Your task to perform on an android device: turn on priority inbox in the gmail app Image 0: 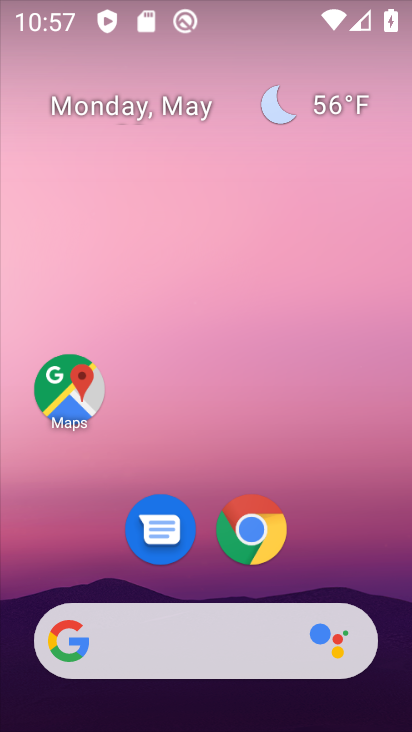
Step 0: drag from (307, 571) to (251, 201)
Your task to perform on an android device: turn on priority inbox in the gmail app Image 1: 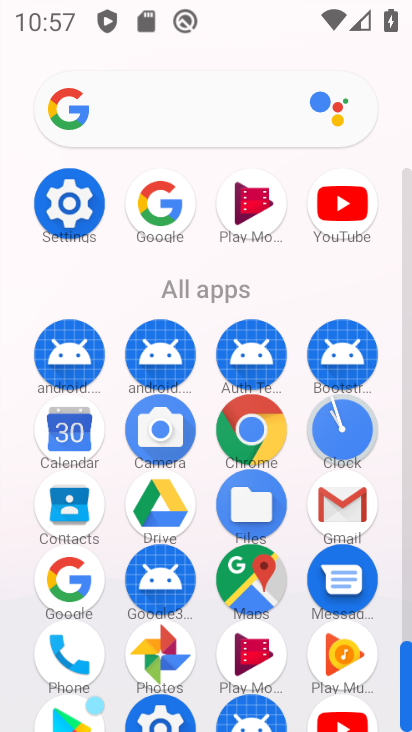
Step 1: click (345, 500)
Your task to perform on an android device: turn on priority inbox in the gmail app Image 2: 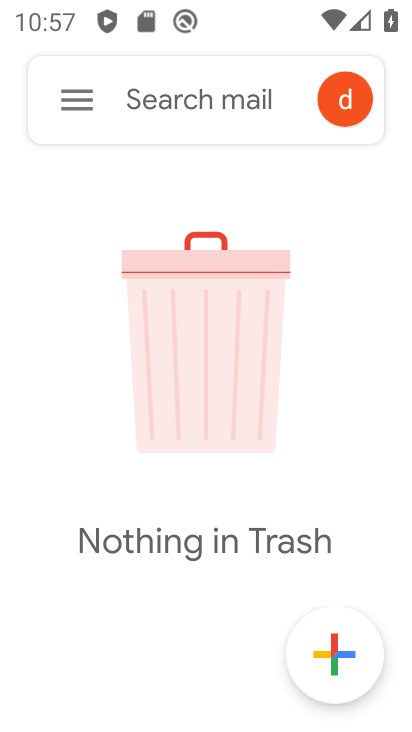
Step 2: click (74, 100)
Your task to perform on an android device: turn on priority inbox in the gmail app Image 3: 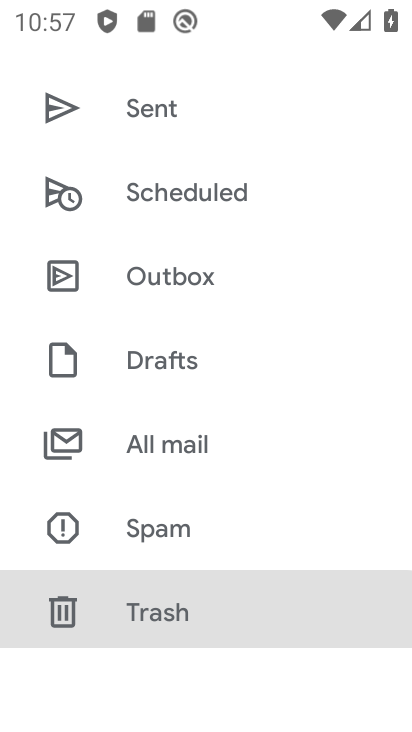
Step 3: drag from (206, 546) to (237, 385)
Your task to perform on an android device: turn on priority inbox in the gmail app Image 4: 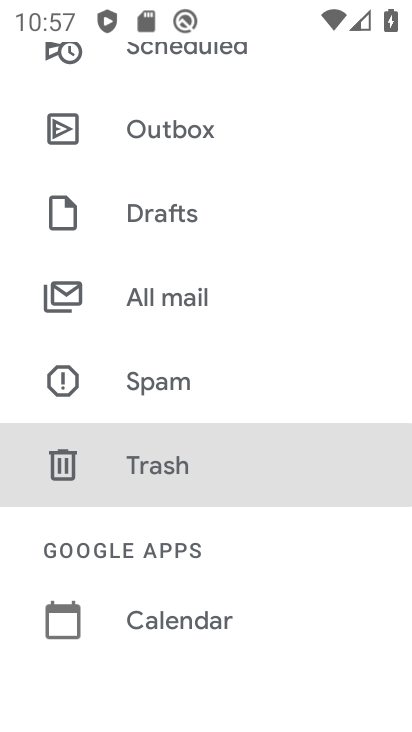
Step 4: drag from (205, 586) to (235, 396)
Your task to perform on an android device: turn on priority inbox in the gmail app Image 5: 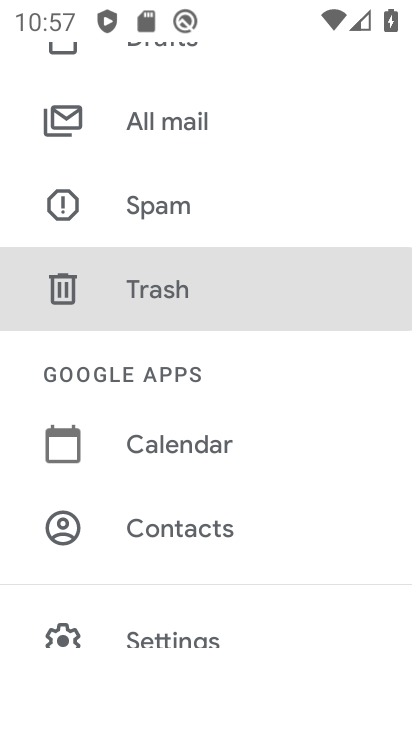
Step 5: drag from (167, 493) to (238, 372)
Your task to perform on an android device: turn on priority inbox in the gmail app Image 6: 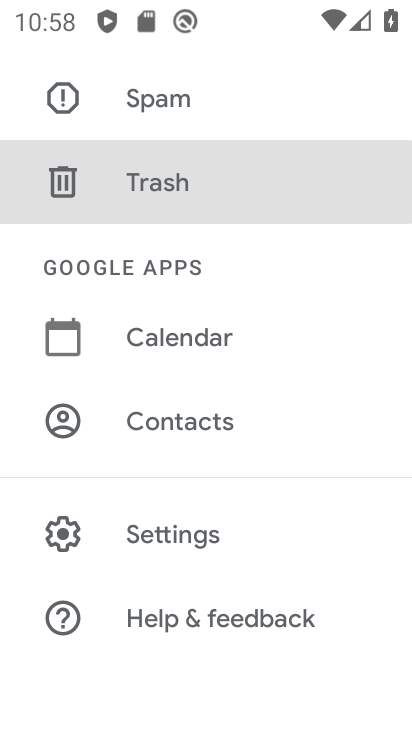
Step 6: click (194, 533)
Your task to perform on an android device: turn on priority inbox in the gmail app Image 7: 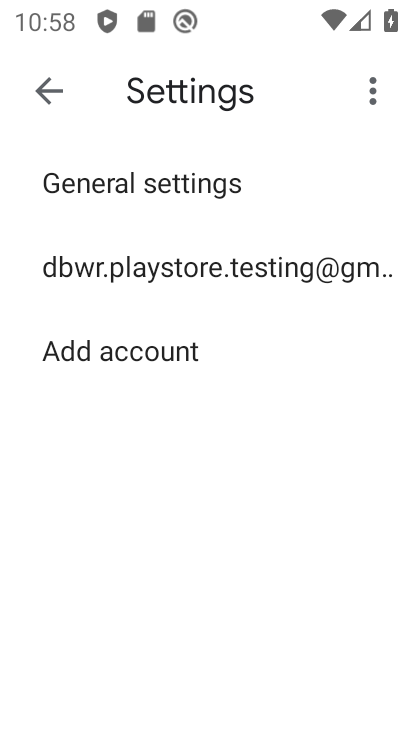
Step 7: click (291, 263)
Your task to perform on an android device: turn on priority inbox in the gmail app Image 8: 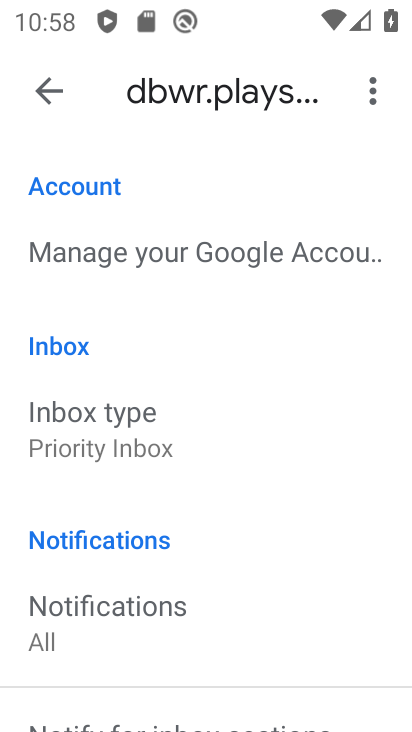
Step 8: task complete